Your task to perform on an android device: Open Youtube and go to the subscriptions tab Image 0: 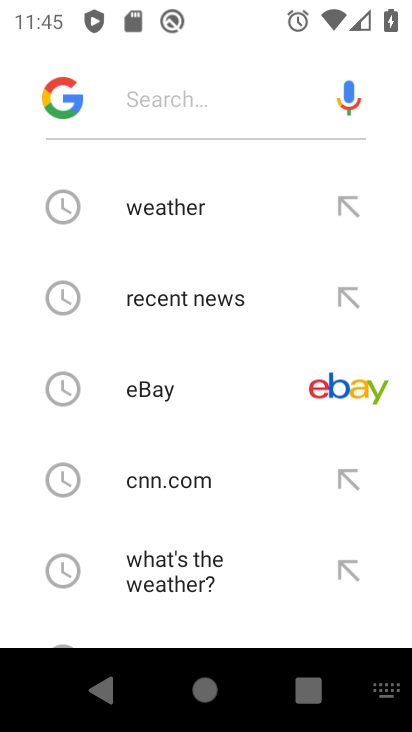
Step 0: press home button
Your task to perform on an android device: Open Youtube and go to the subscriptions tab Image 1: 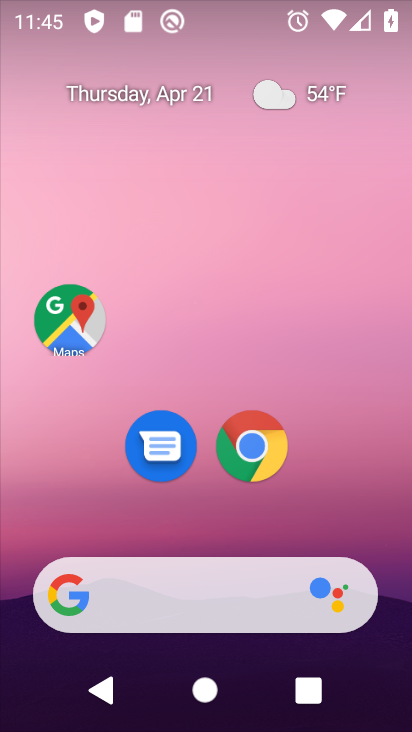
Step 1: drag from (351, 521) to (299, 202)
Your task to perform on an android device: Open Youtube and go to the subscriptions tab Image 2: 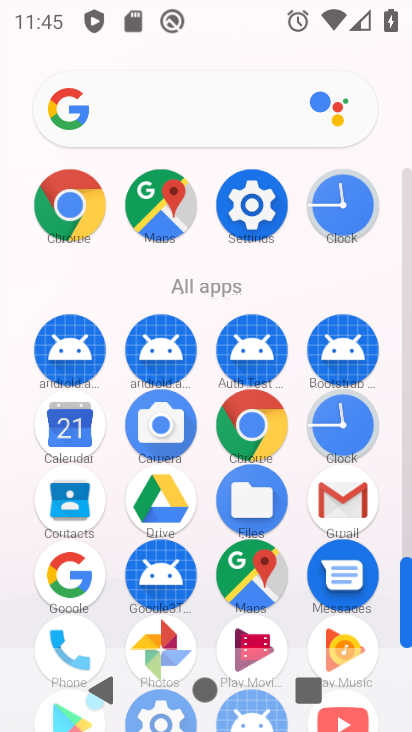
Step 2: click (409, 685)
Your task to perform on an android device: Open Youtube and go to the subscriptions tab Image 3: 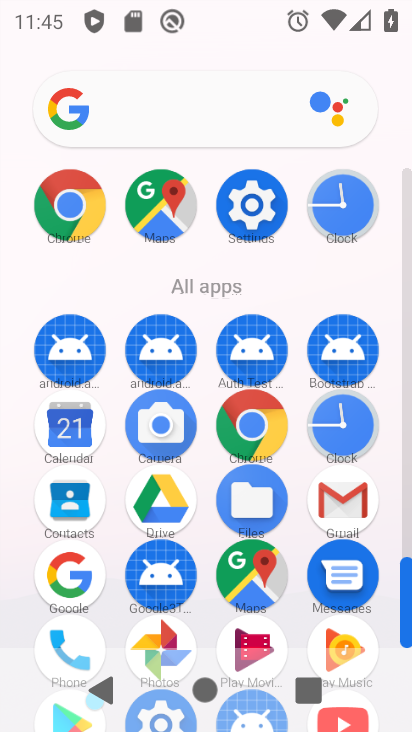
Step 3: drag from (390, 591) to (384, 427)
Your task to perform on an android device: Open Youtube and go to the subscriptions tab Image 4: 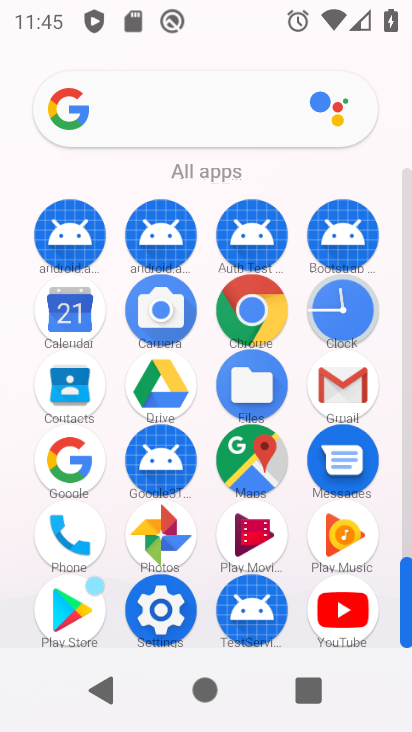
Step 4: click (348, 600)
Your task to perform on an android device: Open Youtube and go to the subscriptions tab Image 5: 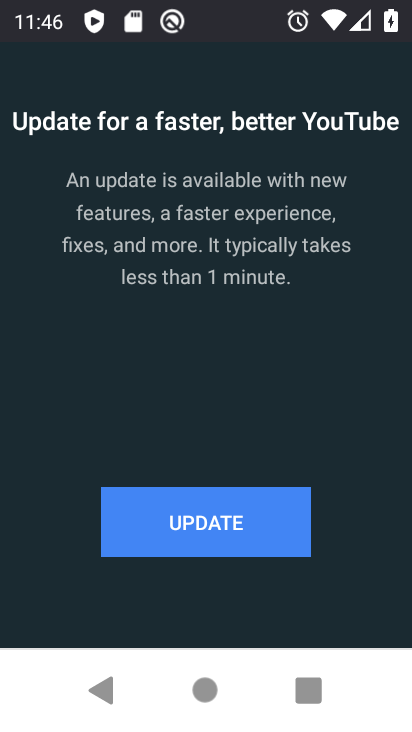
Step 5: click (255, 539)
Your task to perform on an android device: Open Youtube and go to the subscriptions tab Image 6: 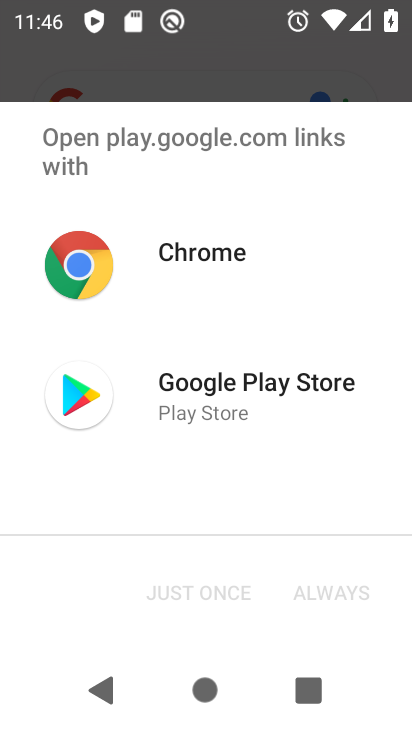
Step 6: click (224, 392)
Your task to perform on an android device: Open Youtube and go to the subscriptions tab Image 7: 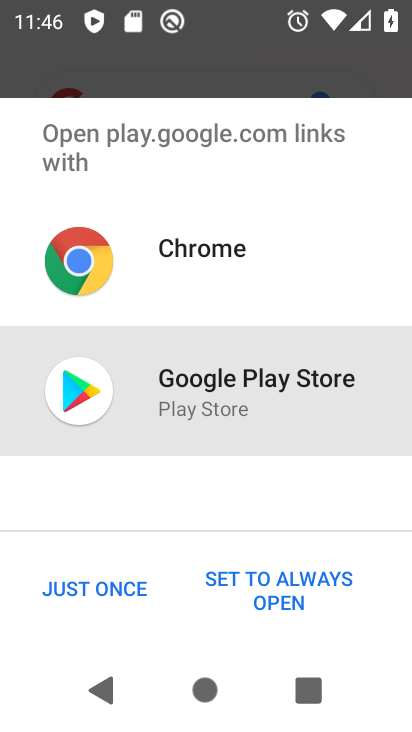
Step 7: click (107, 582)
Your task to perform on an android device: Open Youtube and go to the subscriptions tab Image 8: 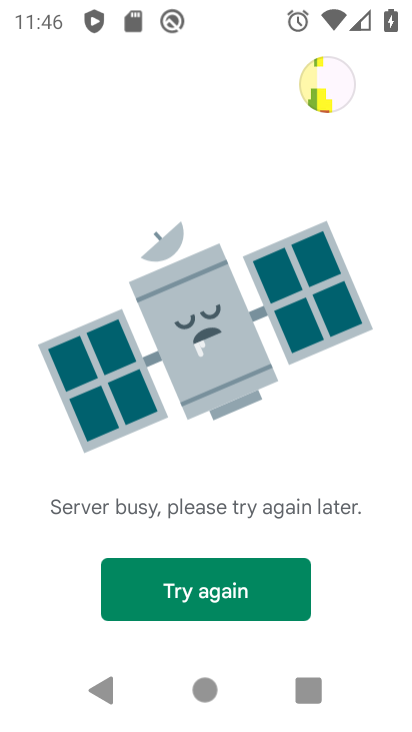
Step 8: click (139, 584)
Your task to perform on an android device: Open Youtube and go to the subscriptions tab Image 9: 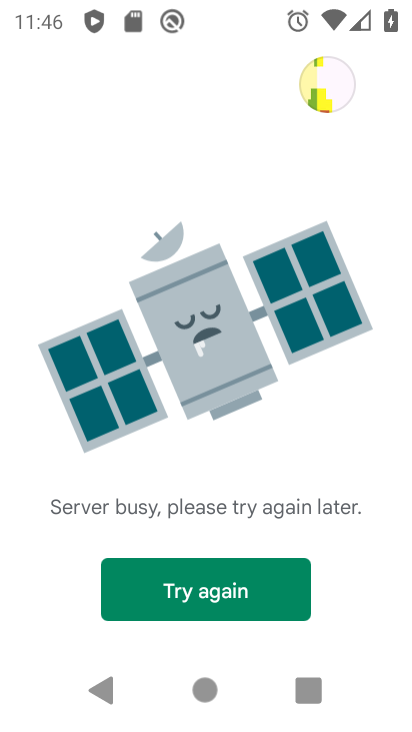
Step 9: task complete